Your task to perform on an android device: Open calendar and show me the second week of next month Image 0: 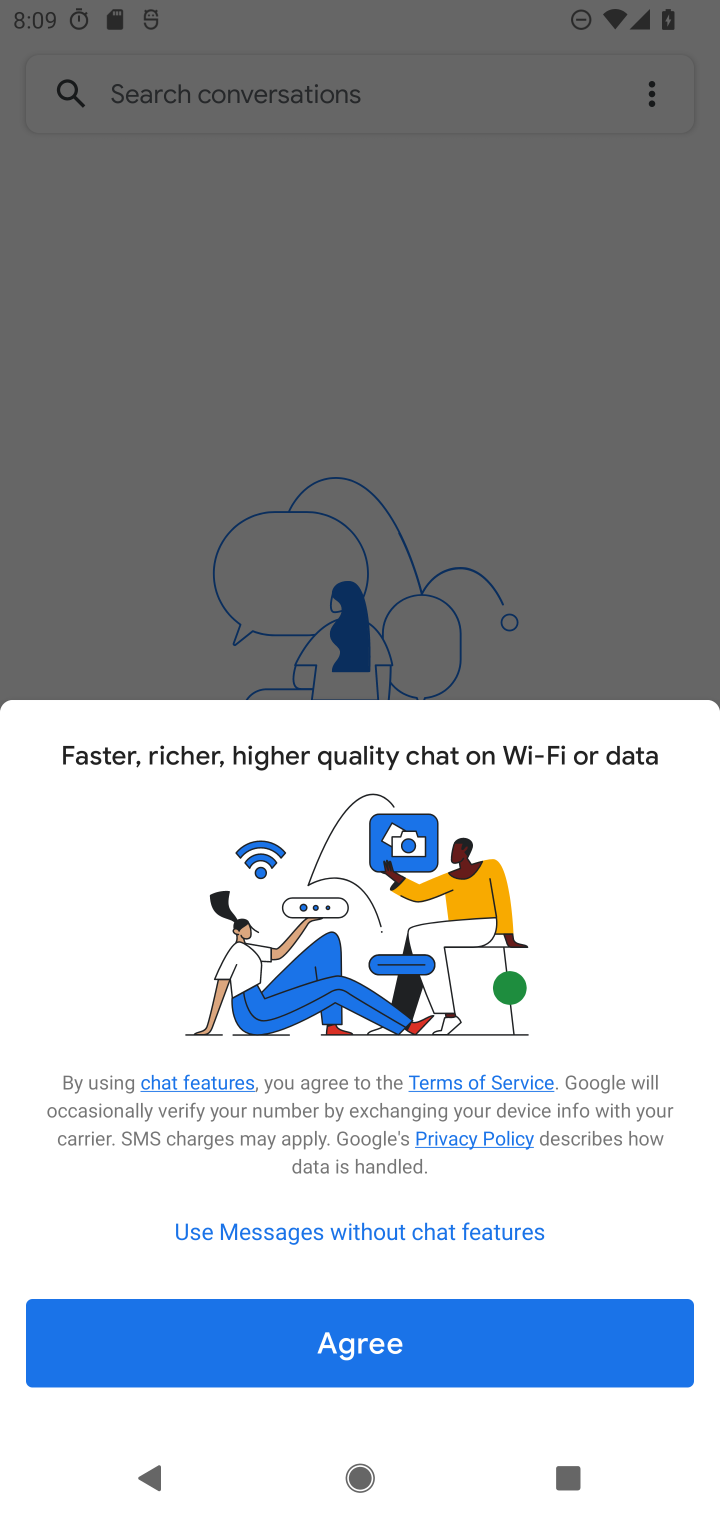
Step 0: press home button
Your task to perform on an android device: Open calendar and show me the second week of next month Image 1: 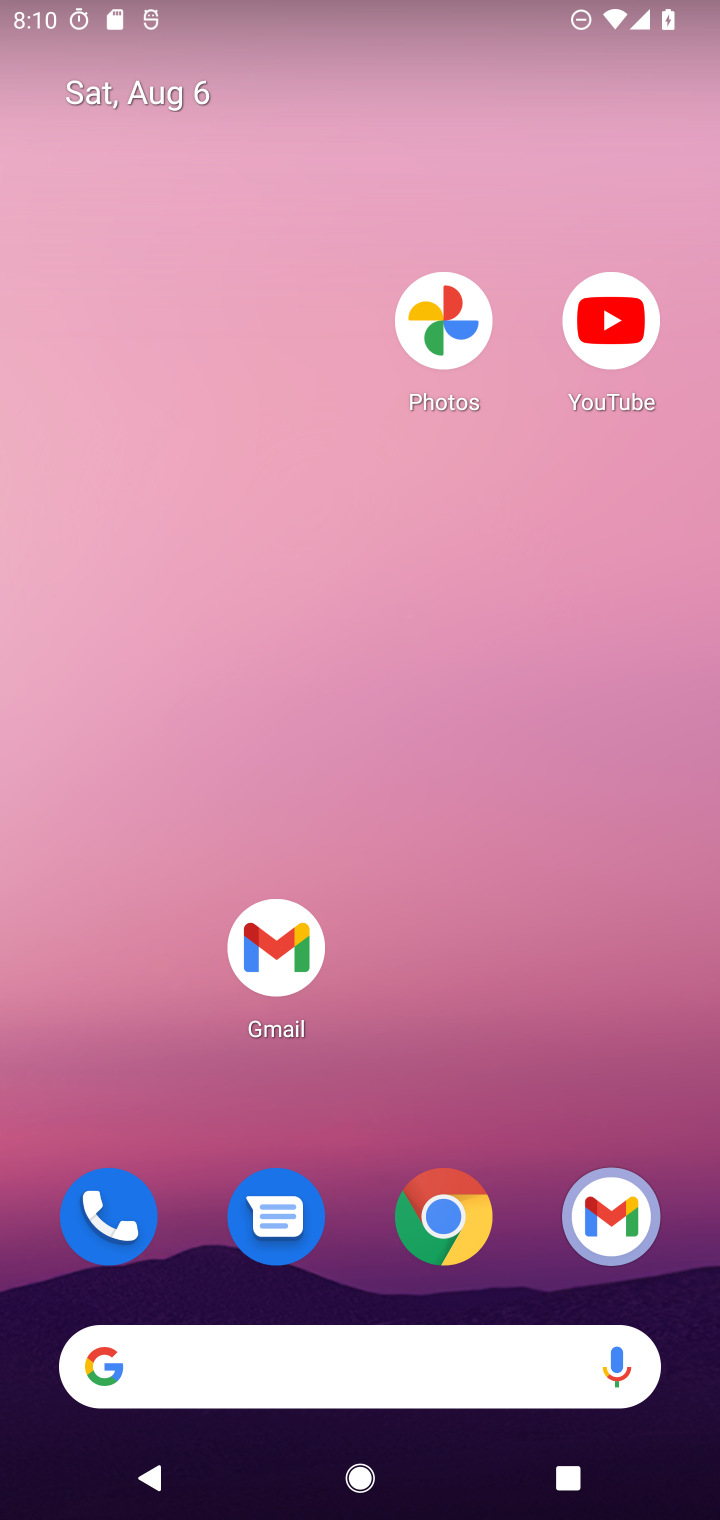
Step 1: drag from (512, 837) to (400, 0)
Your task to perform on an android device: Open calendar and show me the second week of next month Image 2: 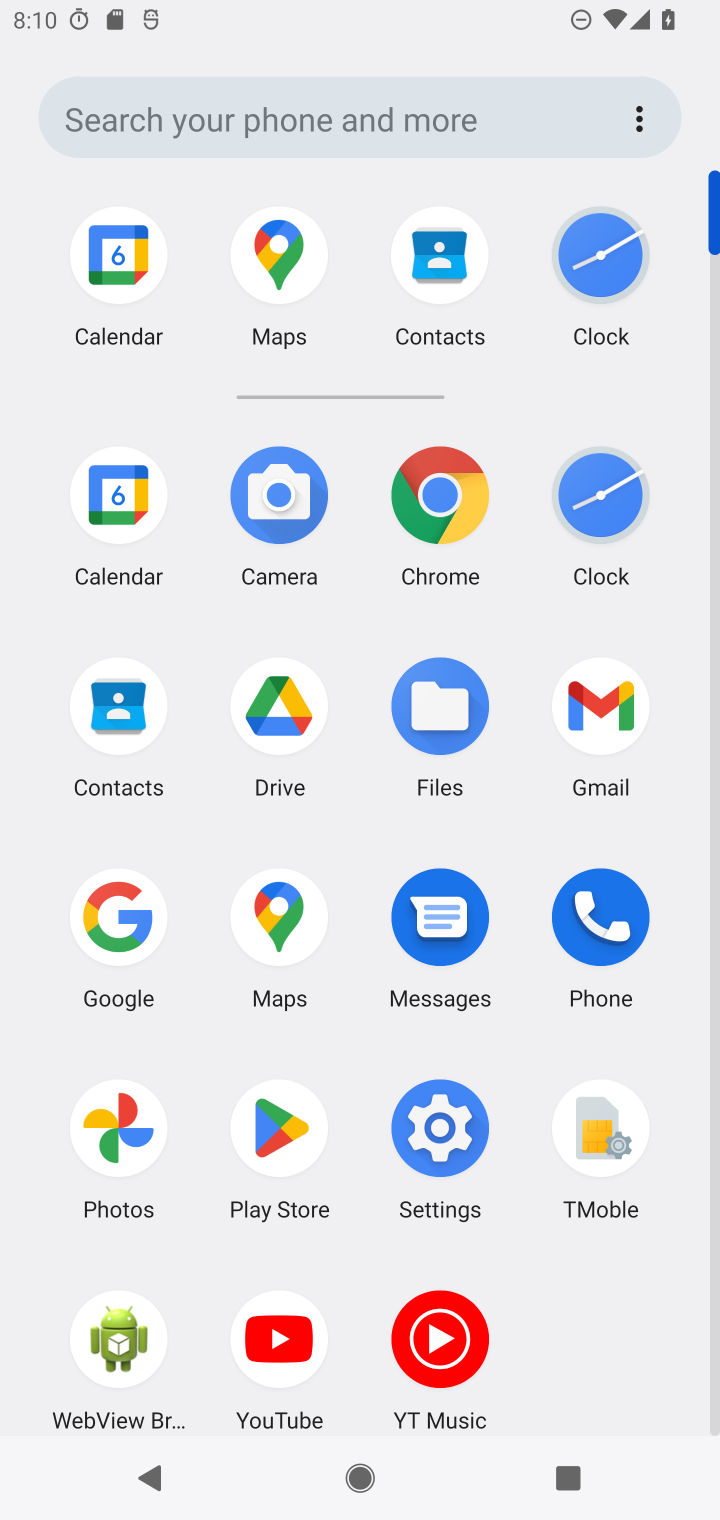
Step 2: click (118, 482)
Your task to perform on an android device: Open calendar and show me the second week of next month Image 3: 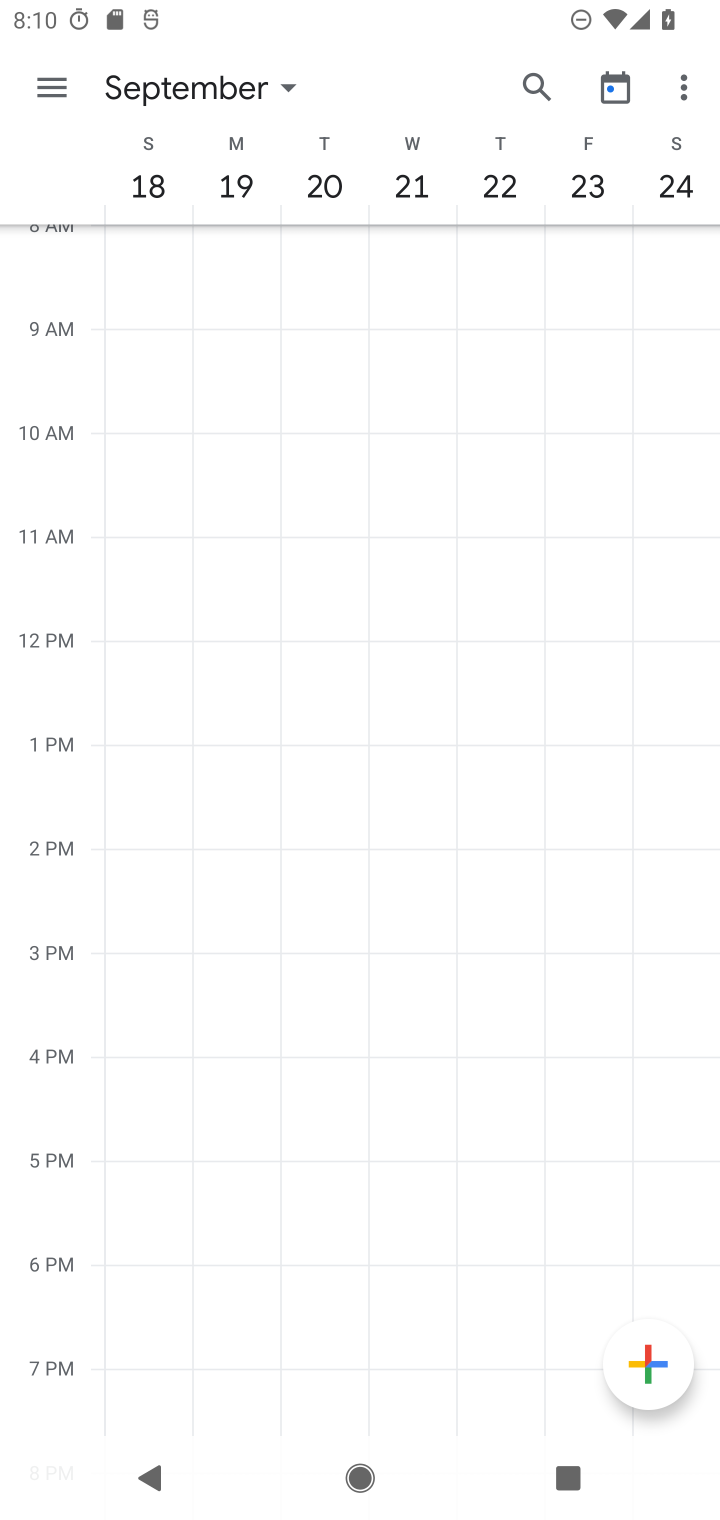
Step 3: click (258, 95)
Your task to perform on an android device: Open calendar and show me the second week of next month Image 4: 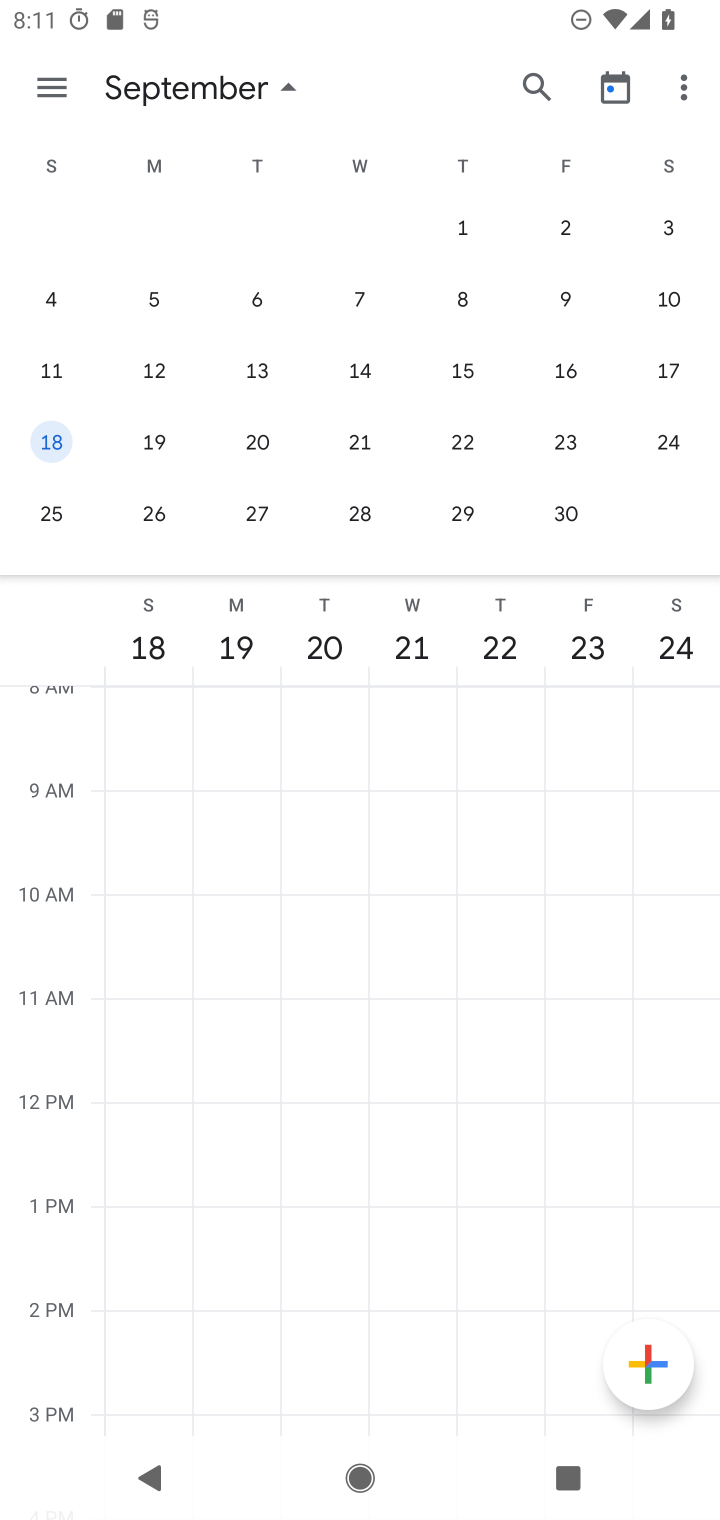
Step 4: click (351, 367)
Your task to perform on an android device: Open calendar and show me the second week of next month Image 5: 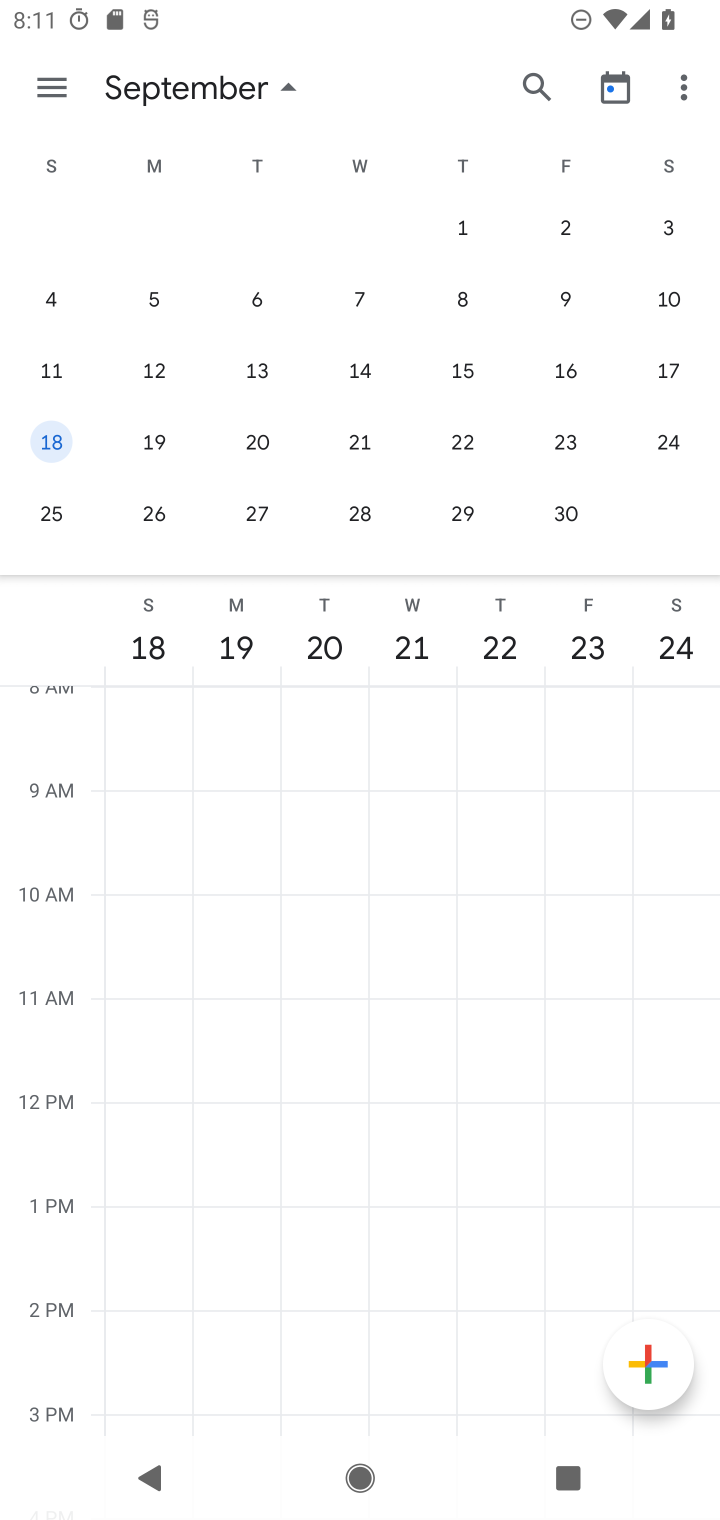
Step 5: click (247, 366)
Your task to perform on an android device: Open calendar and show me the second week of next month Image 6: 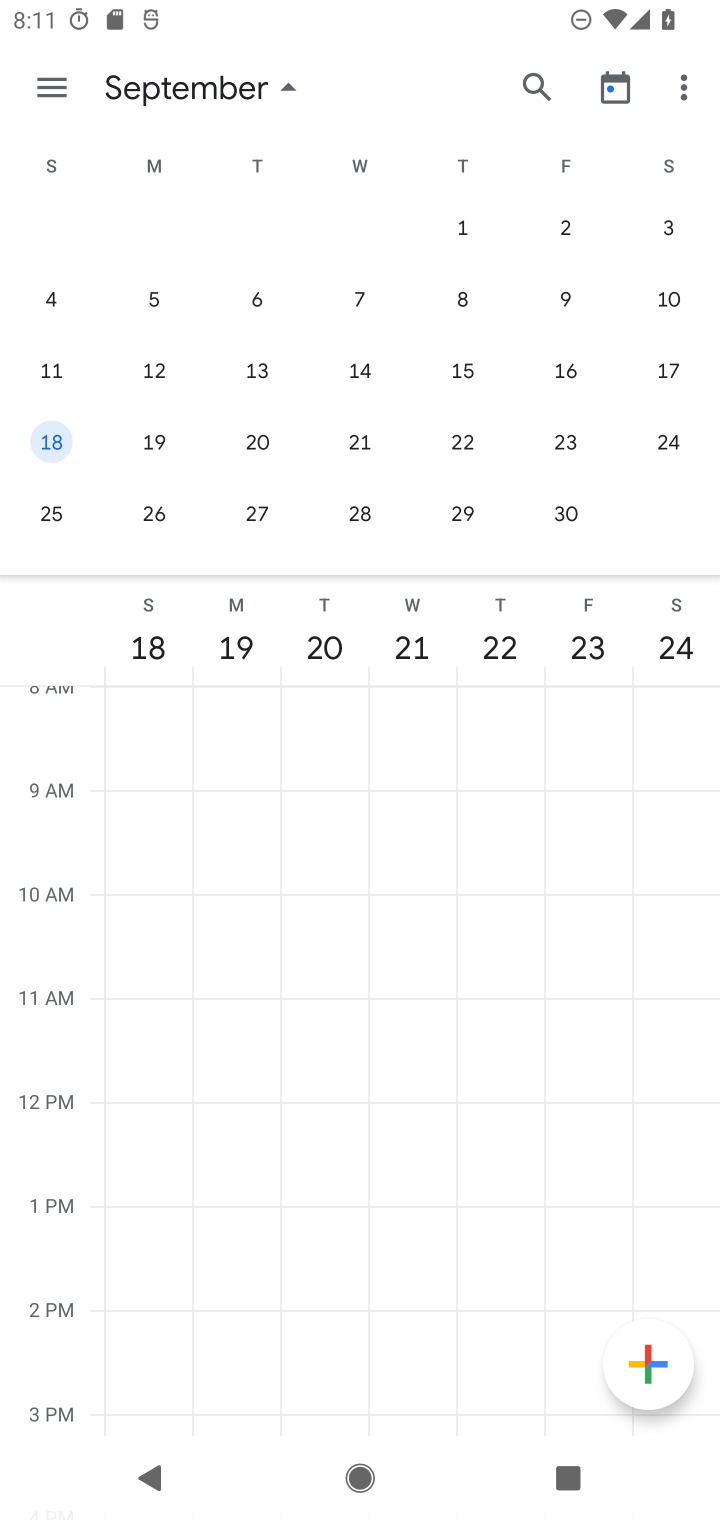
Step 6: click (247, 366)
Your task to perform on an android device: Open calendar and show me the second week of next month Image 7: 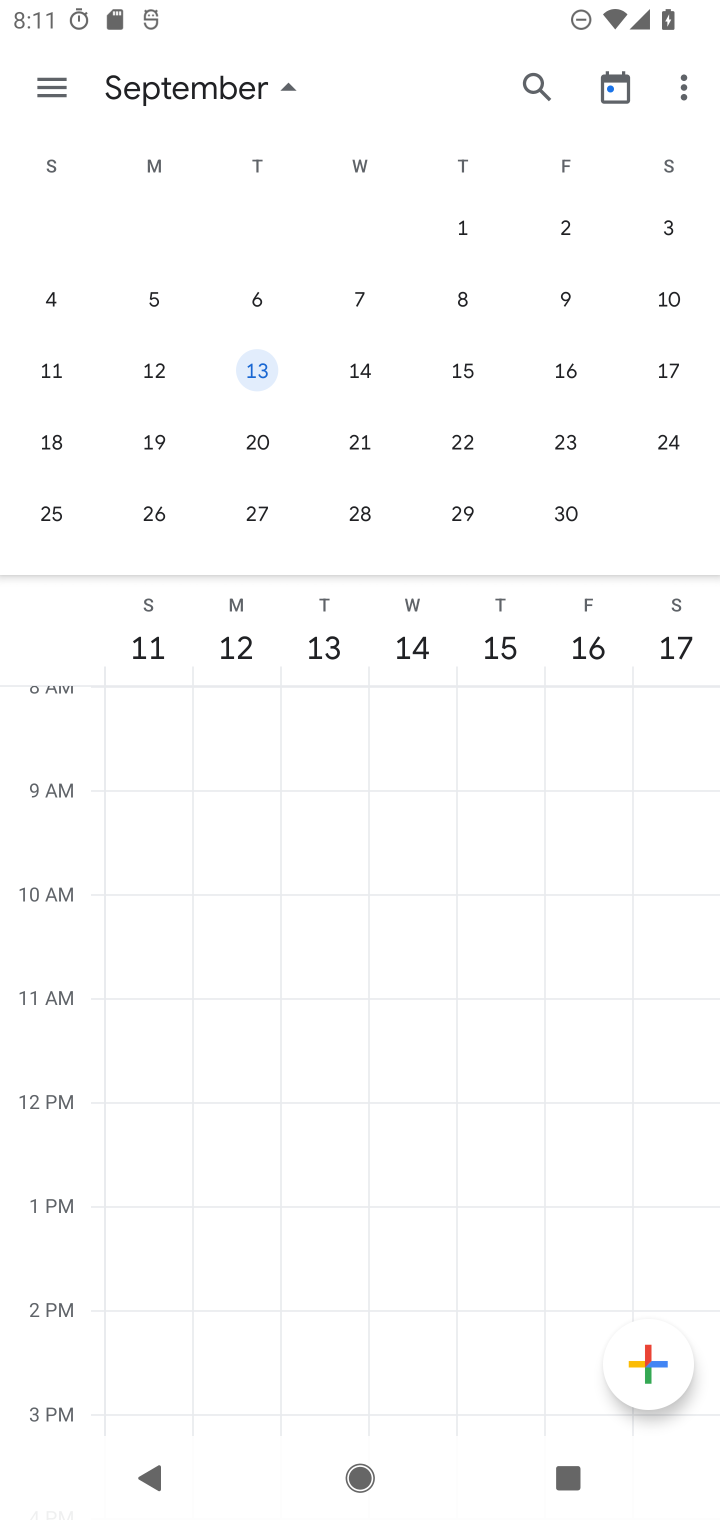
Step 7: task complete